Your task to perform on an android device: Check the weather Image 0: 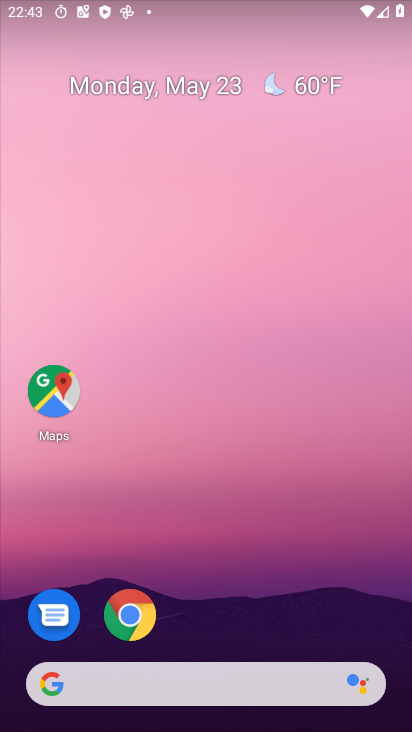
Step 0: drag from (224, 603) to (247, 58)
Your task to perform on an android device: Check the weather Image 1: 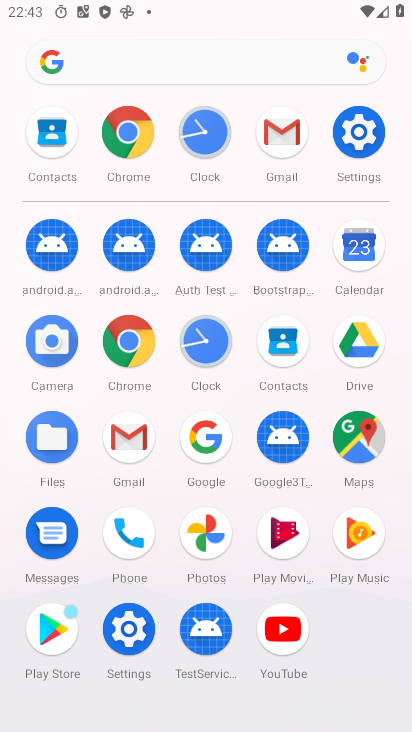
Step 1: drag from (357, 128) to (183, 186)
Your task to perform on an android device: Check the weather Image 2: 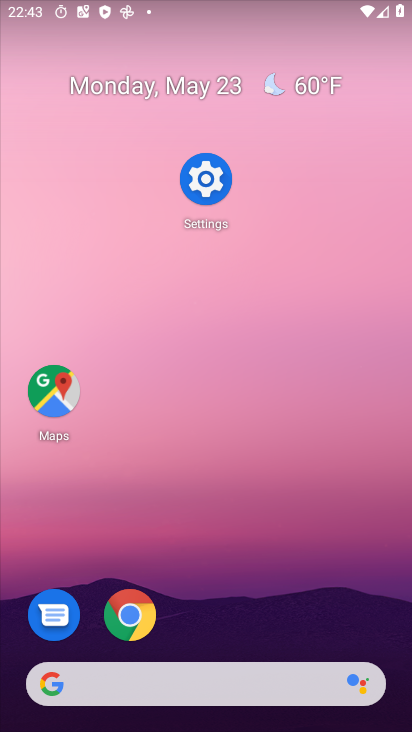
Step 2: drag from (231, 574) to (232, 115)
Your task to perform on an android device: Check the weather Image 3: 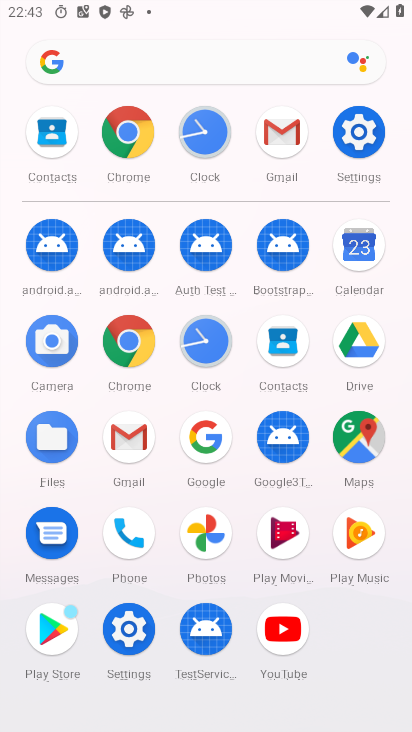
Step 3: click (208, 434)
Your task to perform on an android device: Check the weather Image 4: 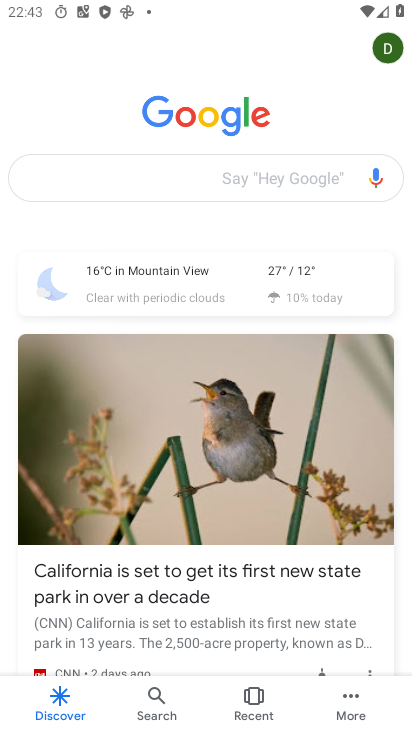
Step 4: click (185, 165)
Your task to perform on an android device: Check the weather Image 5: 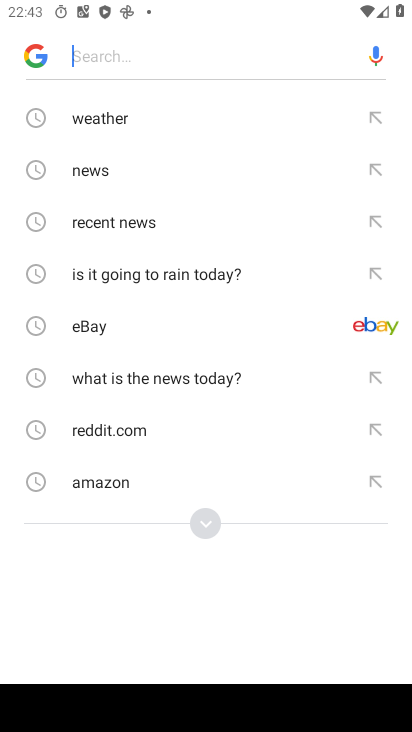
Step 5: click (132, 117)
Your task to perform on an android device: Check the weather Image 6: 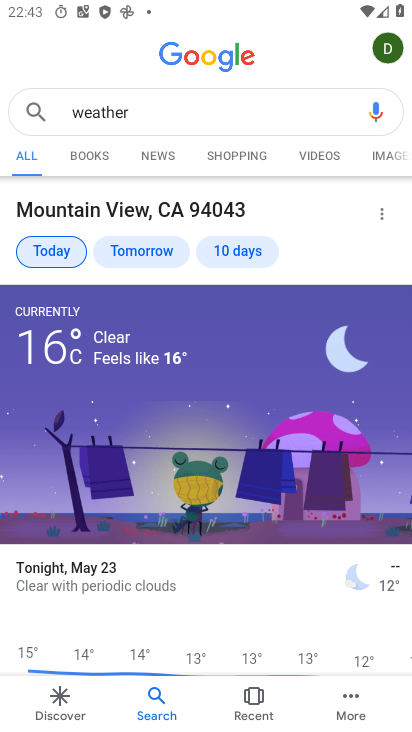
Step 6: task complete